Your task to perform on an android device: open chrome privacy settings Image 0: 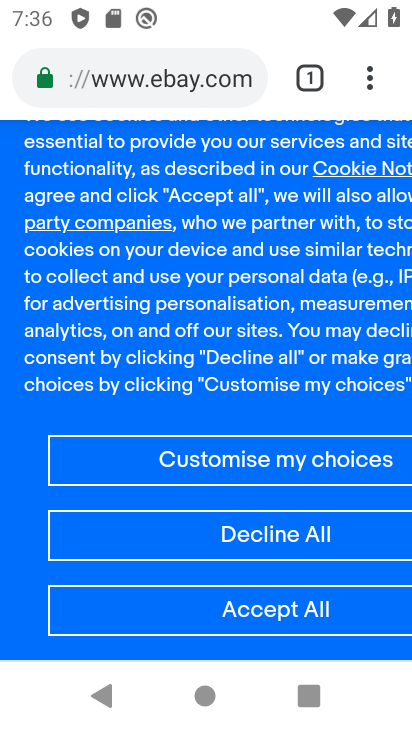
Step 0: press home button
Your task to perform on an android device: open chrome privacy settings Image 1: 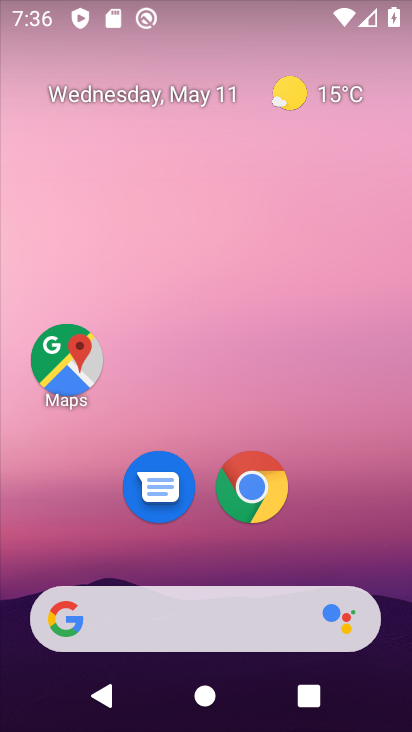
Step 1: drag from (278, 633) to (213, 244)
Your task to perform on an android device: open chrome privacy settings Image 2: 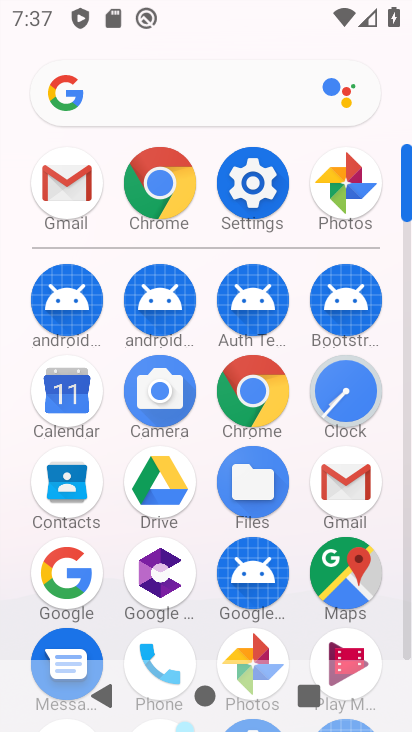
Step 2: click (247, 194)
Your task to perform on an android device: open chrome privacy settings Image 3: 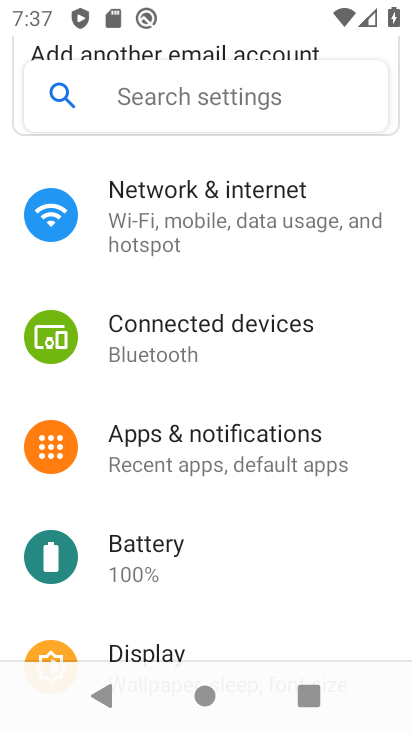
Step 3: drag from (262, 597) to (228, 148)
Your task to perform on an android device: open chrome privacy settings Image 4: 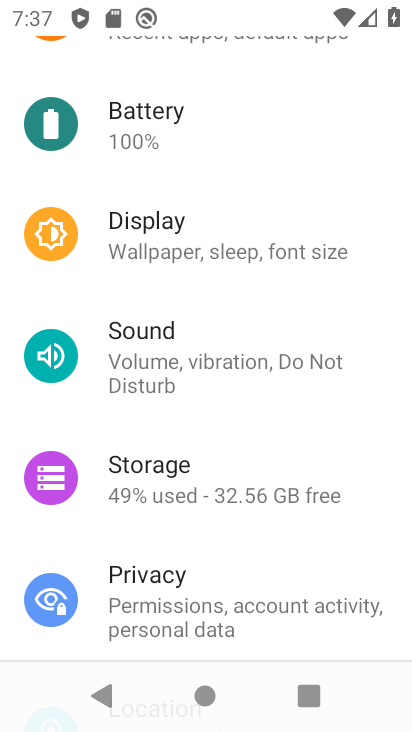
Step 4: click (133, 574)
Your task to perform on an android device: open chrome privacy settings Image 5: 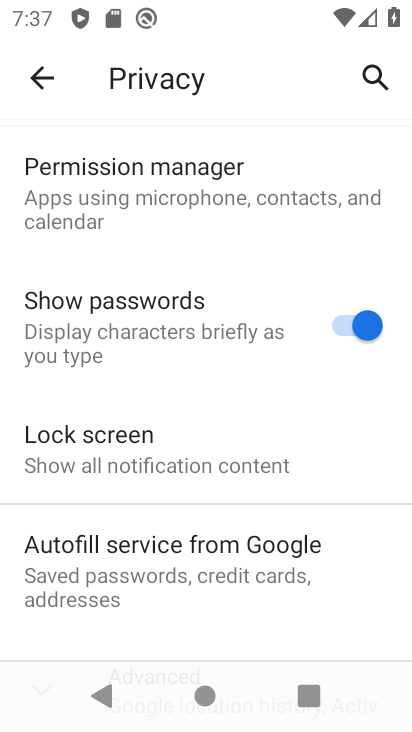
Step 5: task complete